Your task to perform on an android device: delete a single message in the gmail app Image 0: 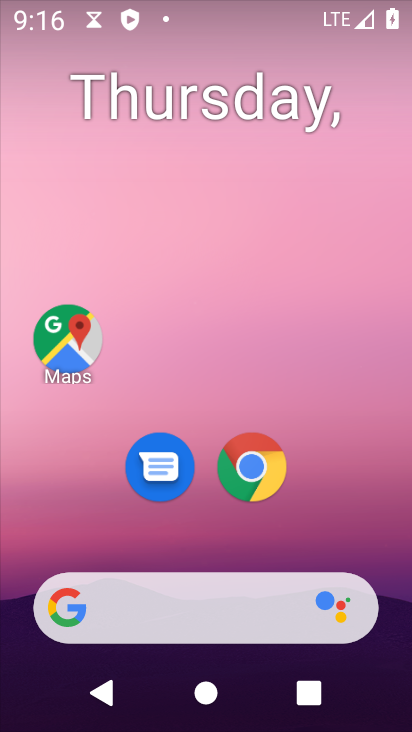
Step 0: drag from (326, 549) to (353, 67)
Your task to perform on an android device: delete a single message in the gmail app Image 1: 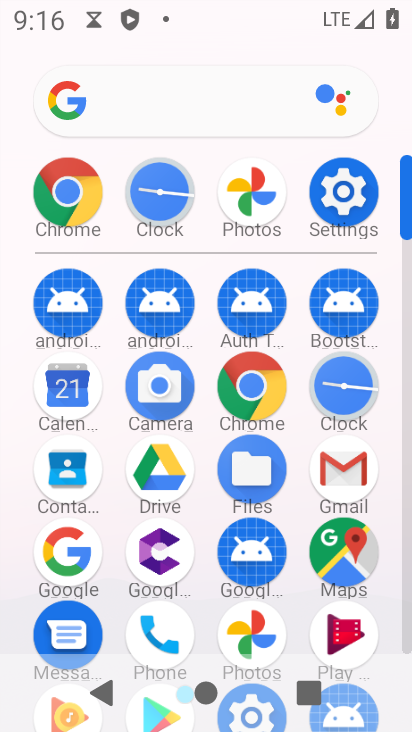
Step 1: click (346, 474)
Your task to perform on an android device: delete a single message in the gmail app Image 2: 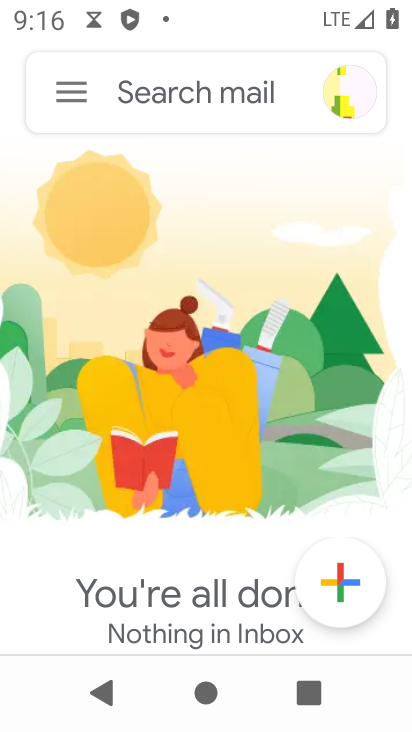
Step 2: click (60, 102)
Your task to perform on an android device: delete a single message in the gmail app Image 3: 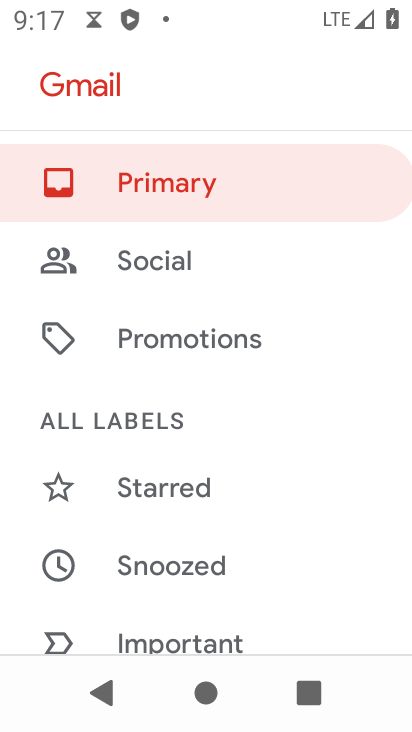
Step 3: drag from (192, 509) to (192, 397)
Your task to perform on an android device: delete a single message in the gmail app Image 4: 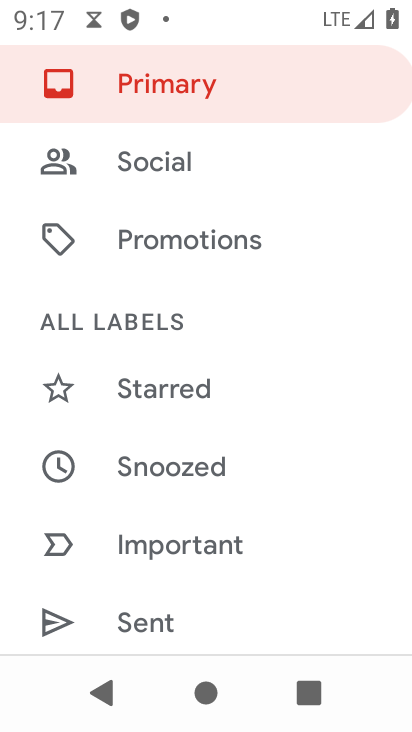
Step 4: drag from (182, 487) to (212, 389)
Your task to perform on an android device: delete a single message in the gmail app Image 5: 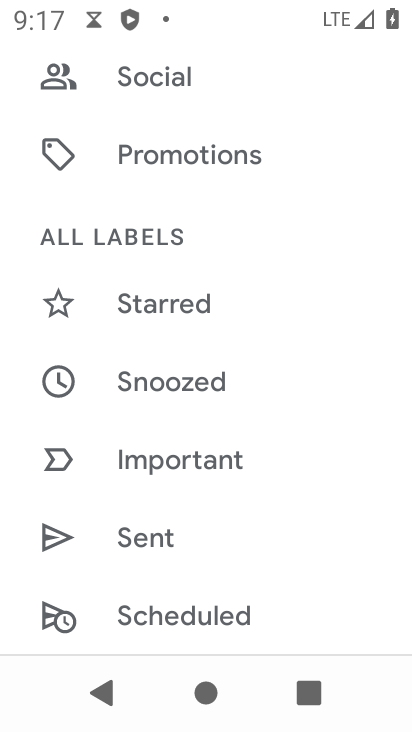
Step 5: drag from (198, 460) to (219, 390)
Your task to perform on an android device: delete a single message in the gmail app Image 6: 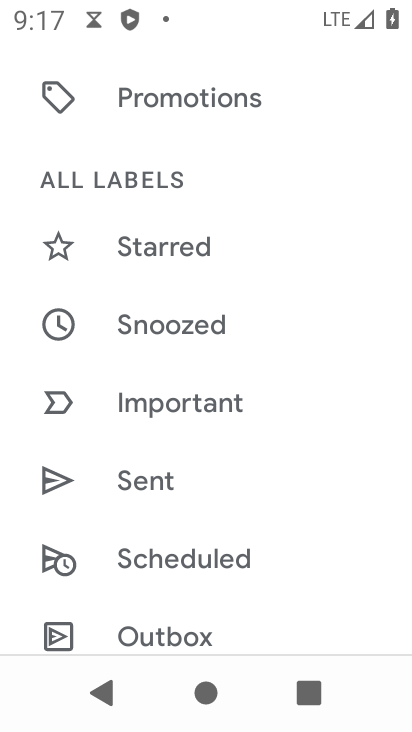
Step 6: drag from (153, 557) to (188, 462)
Your task to perform on an android device: delete a single message in the gmail app Image 7: 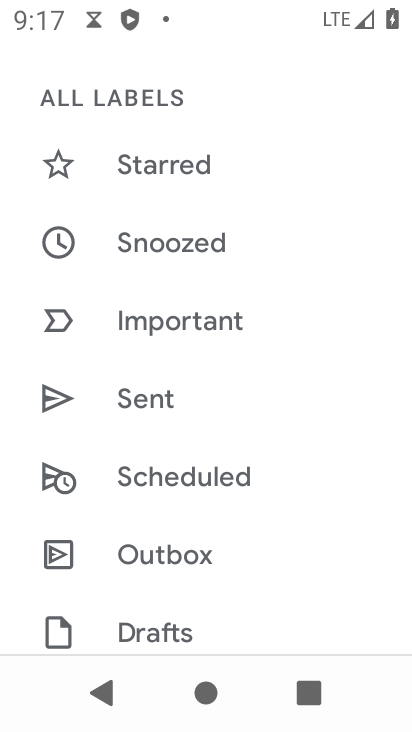
Step 7: drag from (139, 555) to (149, 440)
Your task to perform on an android device: delete a single message in the gmail app Image 8: 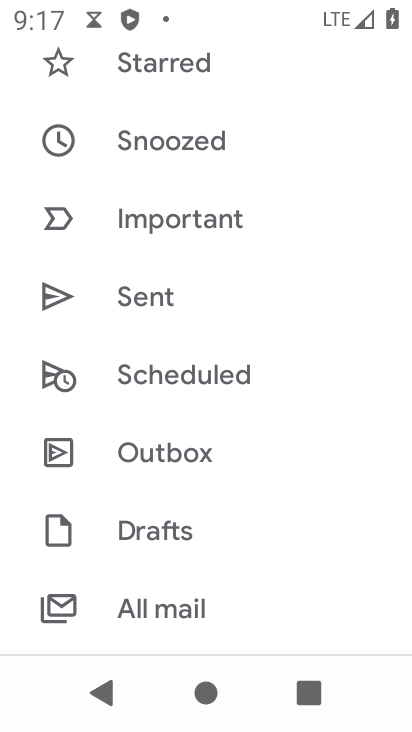
Step 8: drag from (116, 536) to (151, 447)
Your task to perform on an android device: delete a single message in the gmail app Image 9: 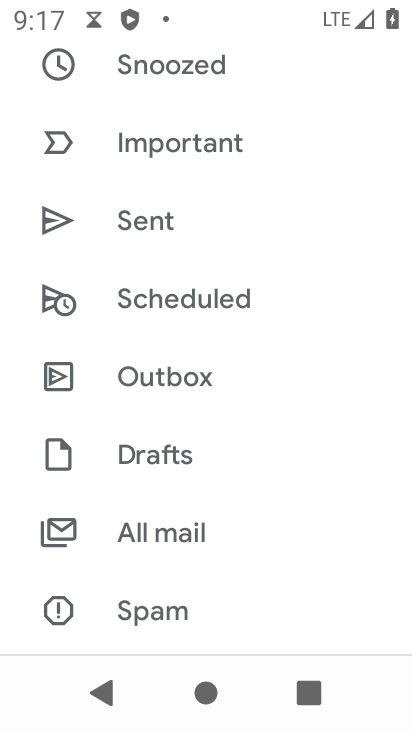
Step 9: click (128, 528)
Your task to perform on an android device: delete a single message in the gmail app Image 10: 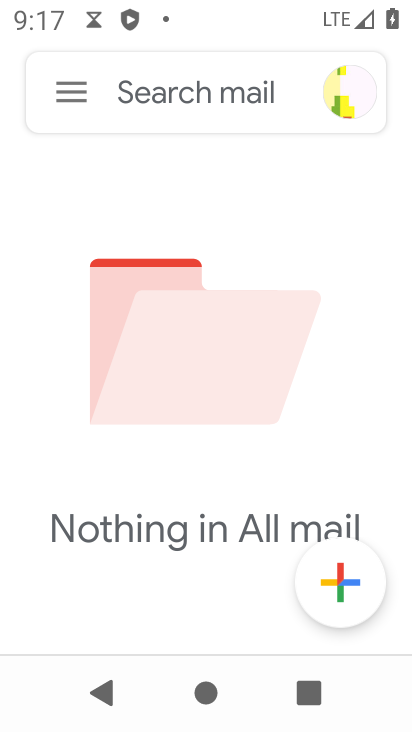
Step 10: task complete